Your task to perform on an android device: toggle location history Image 0: 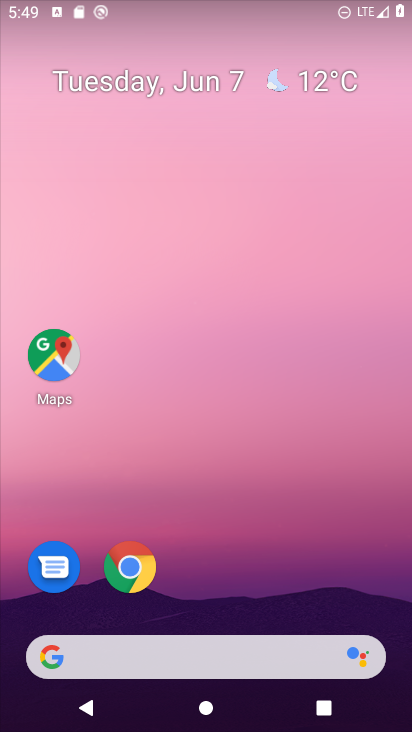
Step 0: drag from (255, 668) to (211, 15)
Your task to perform on an android device: toggle location history Image 1: 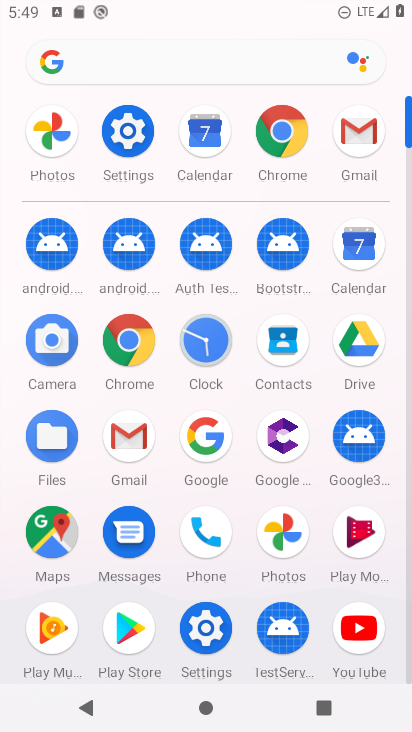
Step 1: click (119, 104)
Your task to perform on an android device: toggle location history Image 2: 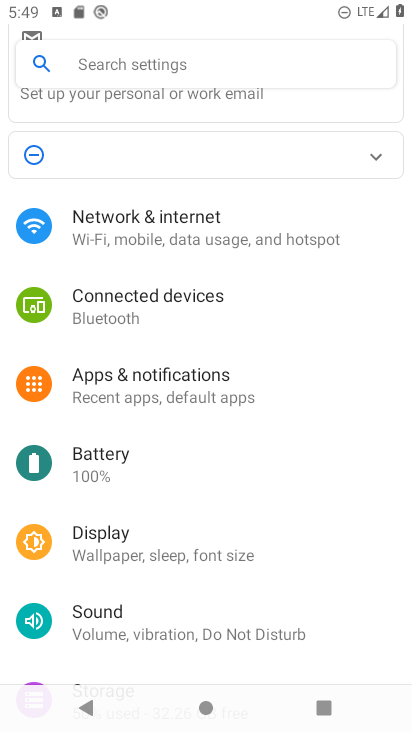
Step 2: drag from (136, 590) to (141, 192)
Your task to perform on an android device: toggle location history Image 3: 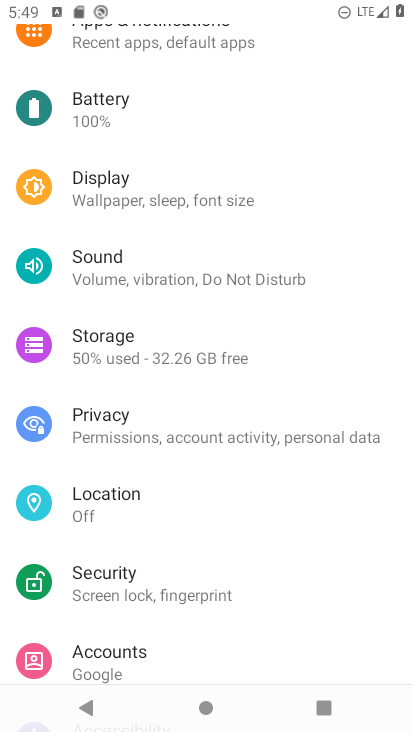
Step 3: click (135, 505)
Your task to perform on an android device: toggle location history Image 4: 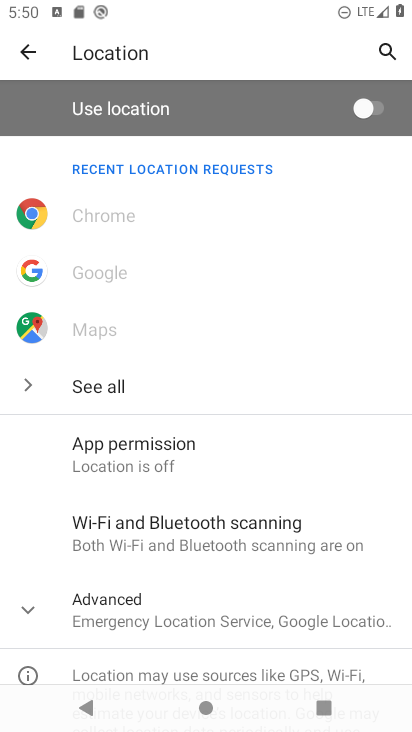
Step 4: drag from (220, 639) to (264, 377)
Your task to perform on an android device: toggle location history Image 5: 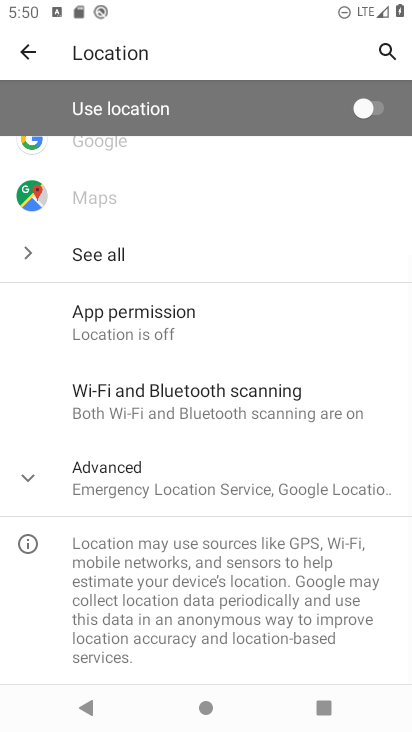
Step 5: click (221, 491)
Your task to perform on an android device: toggle location history Image 6: 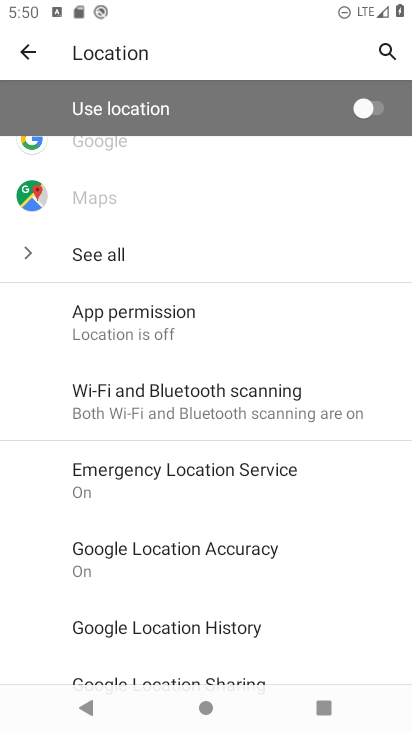
Step 6: click (235, 619)
Your task to perform on an android device: toggle location history Image 7: 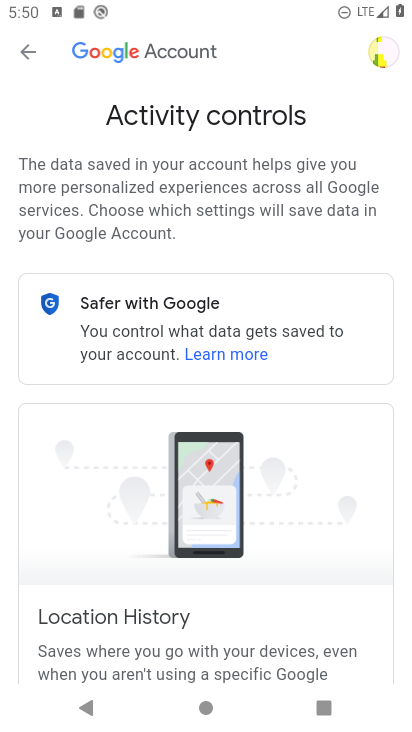
Step 7: drag from (297, 666) to (344, 20)
Your task to perform on an android device: toggle location history Image 8: 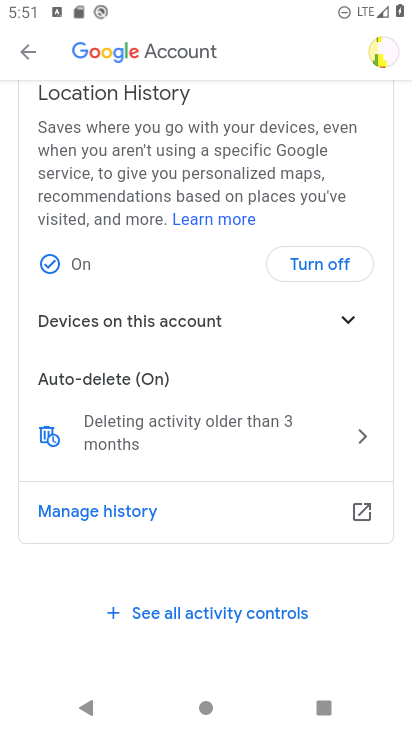
Step 8: click (338, 262)
Your task to perform on an android device: toggle location history Image 9: 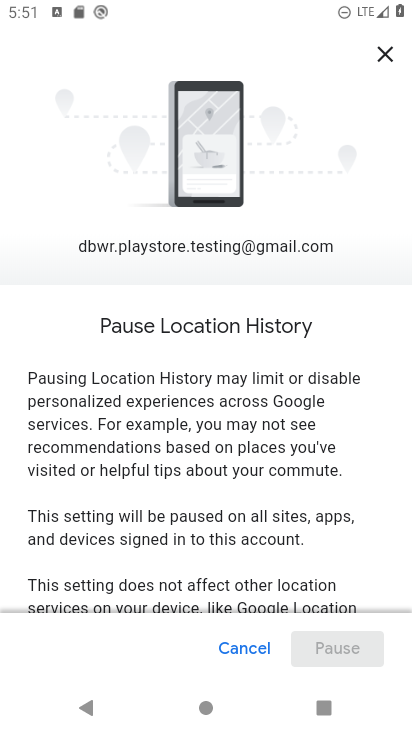
Step 9: drag from (222, 592) to (289, 81)
Your task to perform on an android device: toggle location history Image 10: 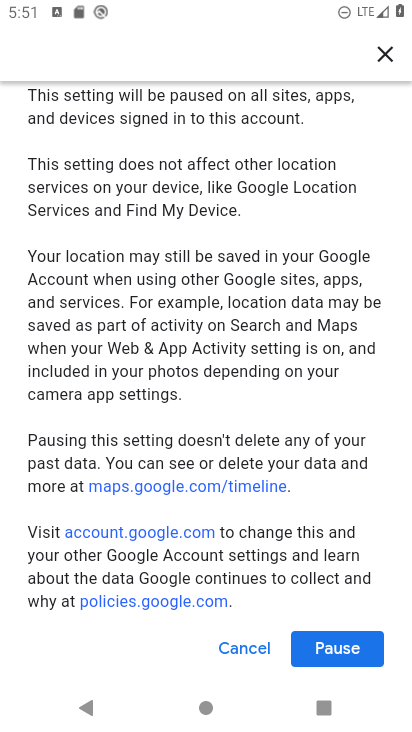
Step 10: click (326, 652)
Your task to perform on an android device: toggle location history Image 11: 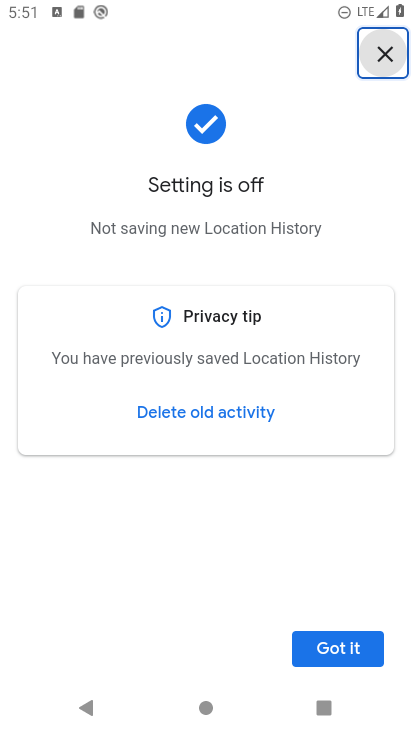
Step 11: task complete